Your task to perform on an android device: change the clock display to digital Image 0: 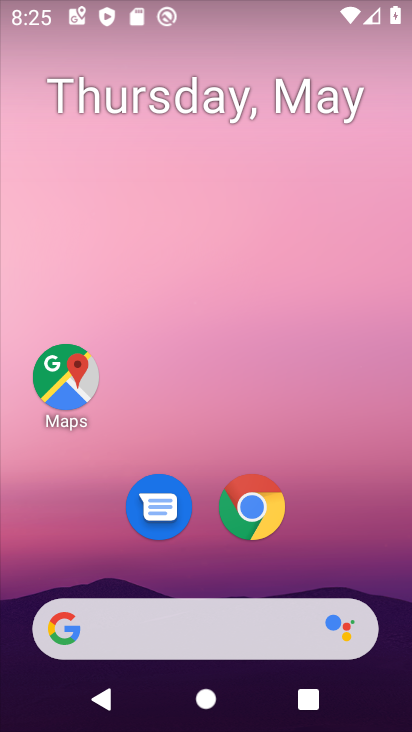
Step 0: drag from (370, 554) to (330, 95)
Your task to perform on an android device: change the clock display to digital Image 1: 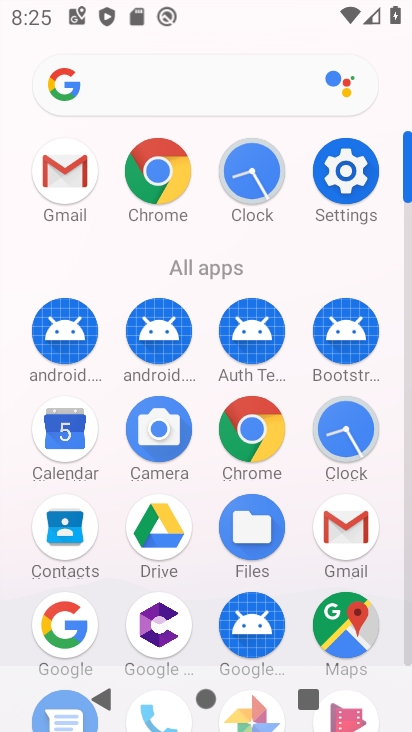
Step 1: click (361, 442)
Your task to perform on an android device: change the clock display to digital Image 2: 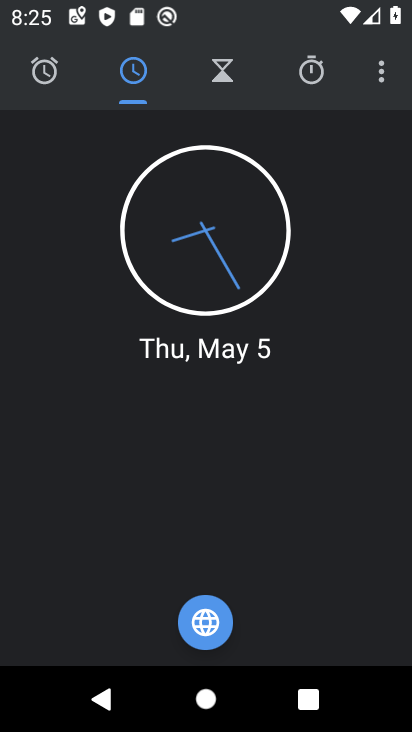
Step 2: click (374, 76)
Your task to perform on an android device: change the clock display to digital Image 3: 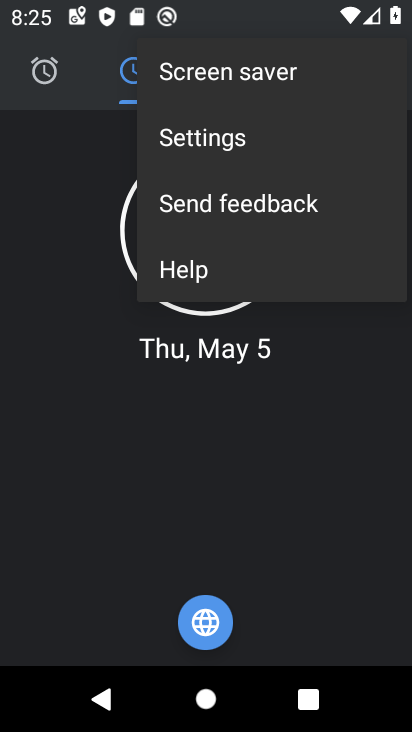
Step 3: click (257, 140)
Your task to perform on an android device: change the clock display to digital Image 4: 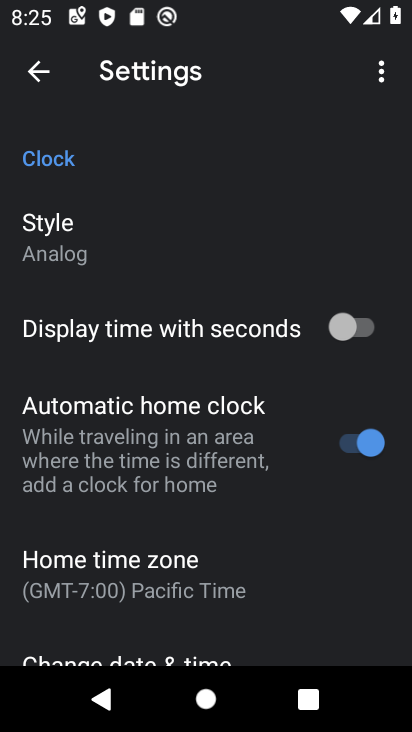
Step 4: click (145, 233)
Your task to perform on an android device: change the clock display to digital Image 5: 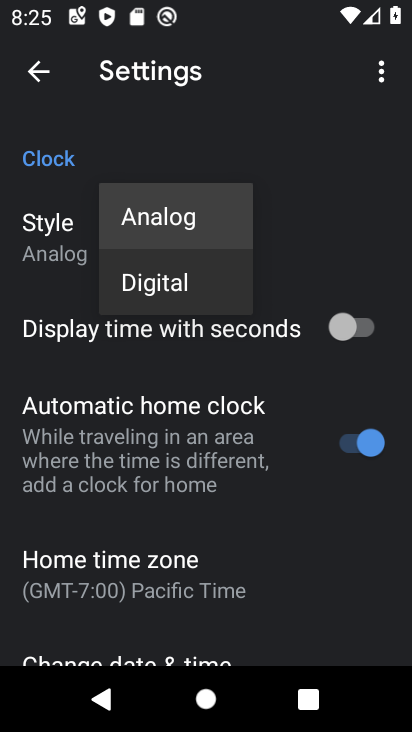
Step 5: click (158, 292)
Your task to perform on an android device: change the clock display to digital Image 6: 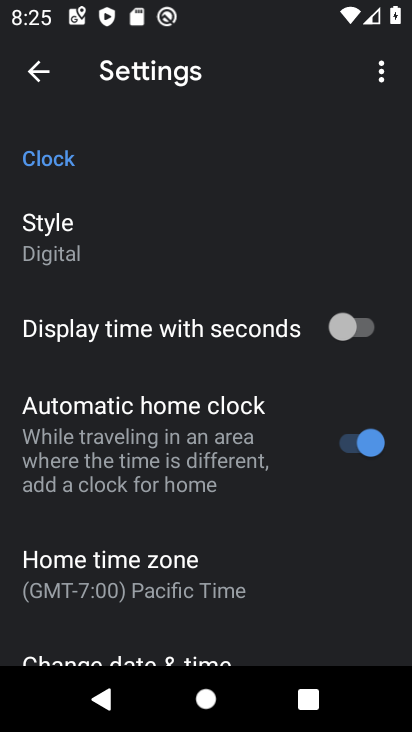
Step 6: task complete